Your task to perform on an android device: Open Google Maps Image 0: 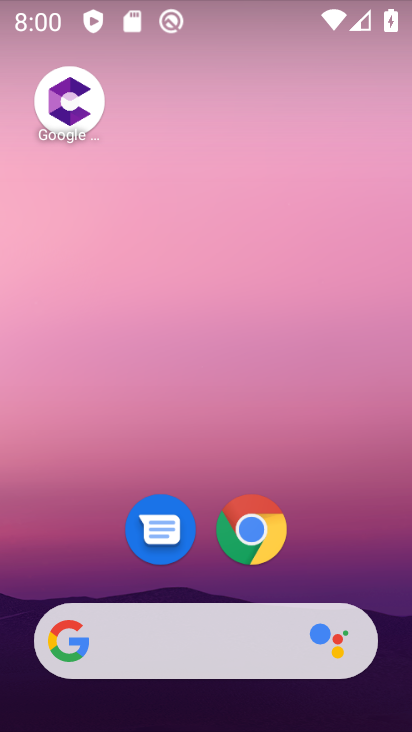
Step 0: drag from (319, 455) to (230, 30)
Your task to perform on an android device: Open Google Maps Image 1: 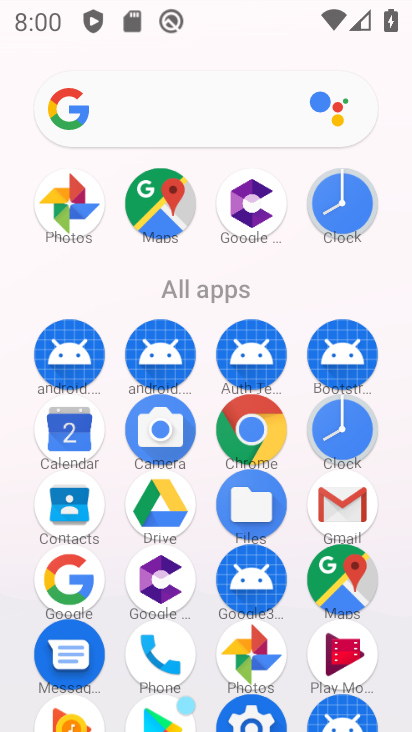
Step 1: click (152, 220)
Your task to perform on an android device: Open Google Maps Image 2: 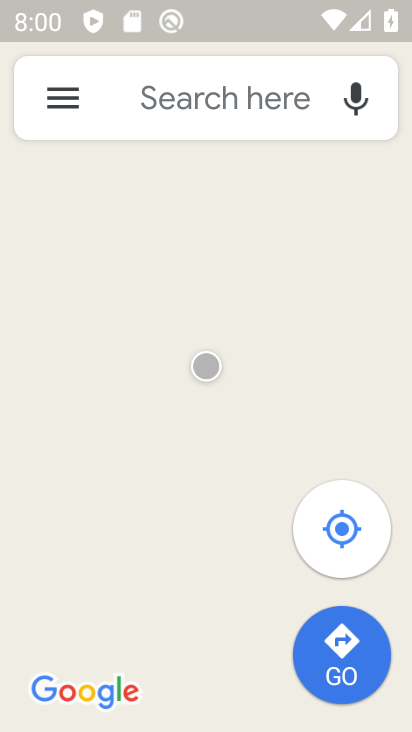
Step 2: task complete